Your task to perform on an android device: Look up the best rated headphones on Aliexpress Image 0: 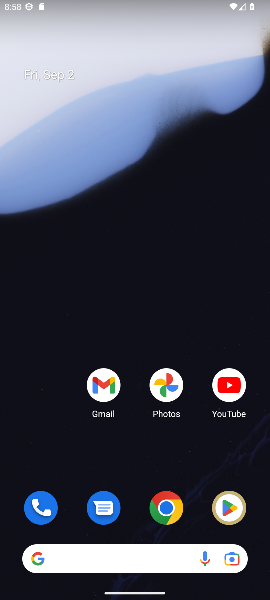
Step 0: click (170, 505)
Your task to perform on an android device: Look up the best rated headphones on Aliexpress Image 1: 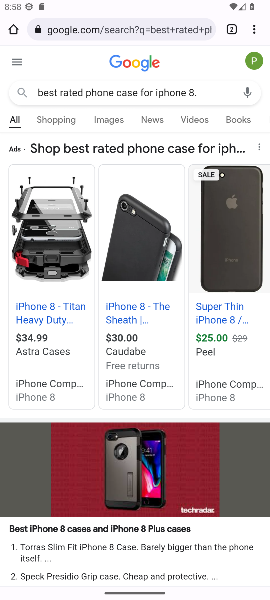
Step 1: click (159, 27)
Your task to perform on an android device: Look up the best rated headphones on Aliexpress Image 2: 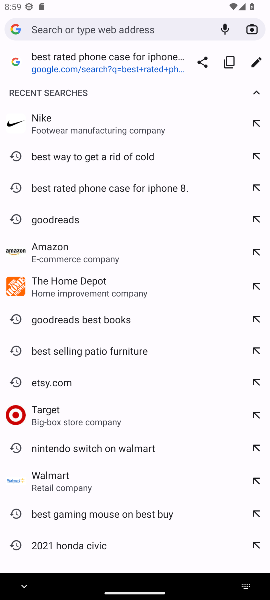
Step 2: type "Aliexpress"
Your task to perform on an android device: Look up the best rated headphones on Aliexpress Image 3: 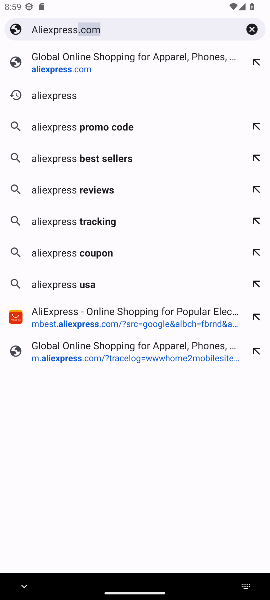
Step 3: click (52, 96)
Your task to perform on an android device: Look up the best rated headphones on Aliexpress Image 4: 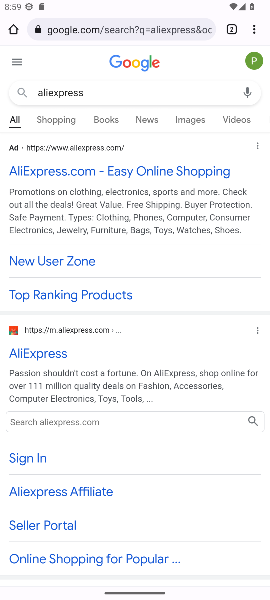
Step 4: click (72, 169)
Your task to perform on an android device: Look up the best rated headphones on Aliexpress Image 5: 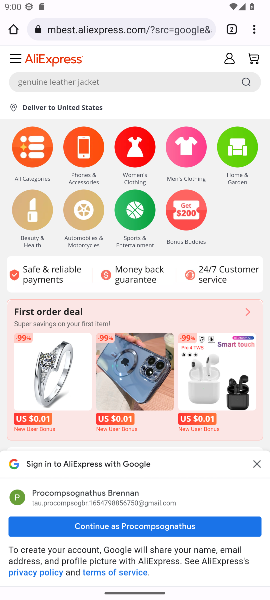
Step 5: click (232, 79)
Your task to perform on an android device: Look up the best rated headphones on Aliexpress Image 6: 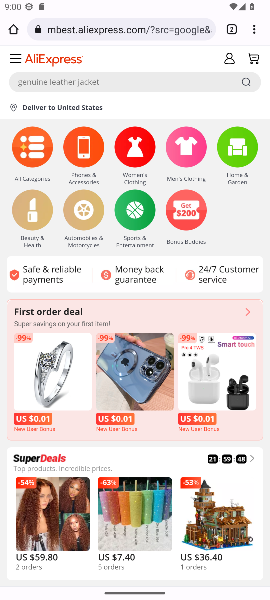
Step 6: click (69, 80)
Your task to perform on an android device: Look up the best rated headphones on Aliexpress Image 7: 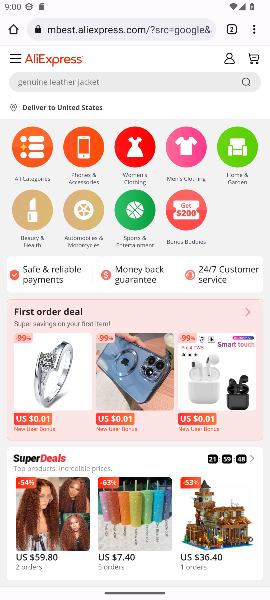
Step 7: click (69, 80)
Your task to perform on an android device: Look up the best rated headphones on Aliexpress Image 8: 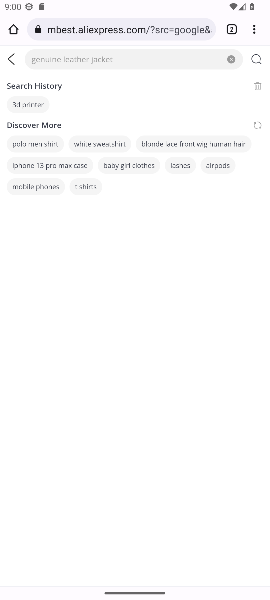
Step 8: type " best rated headphones"
Your task to perform on an android device: Look up the best rated headphones on Aliexpress Image 9: 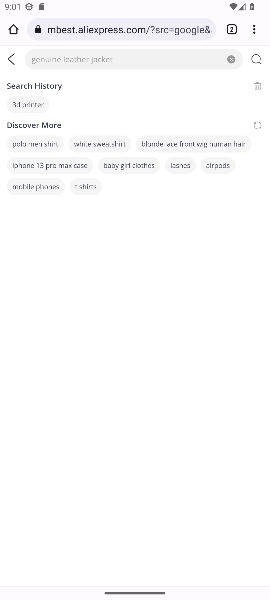
Step 9: click (74, 55)
Your task to perform on an android device: Look up the best rated headphones on Aliexpress Image 10: 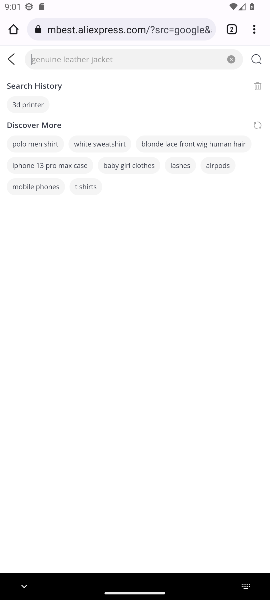
Step 10: type " best rated headphones"
Your task to perform on an android device: Look up the best rated headphones on Aliexpress Image 11: 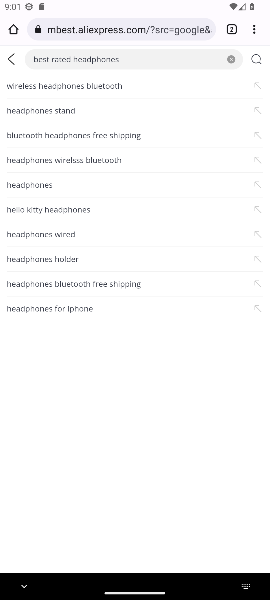
Step 11: click (77, 85)
Your task to perform on an android device: Look up the best rated headphones on Aliexpress Image 12: 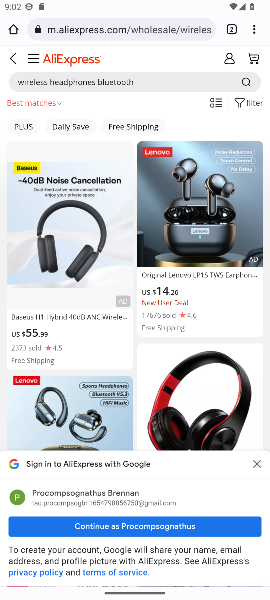
Step 12: task complete